Your task to perform on an android device: Is it going to rain tomorrow? Image 0: 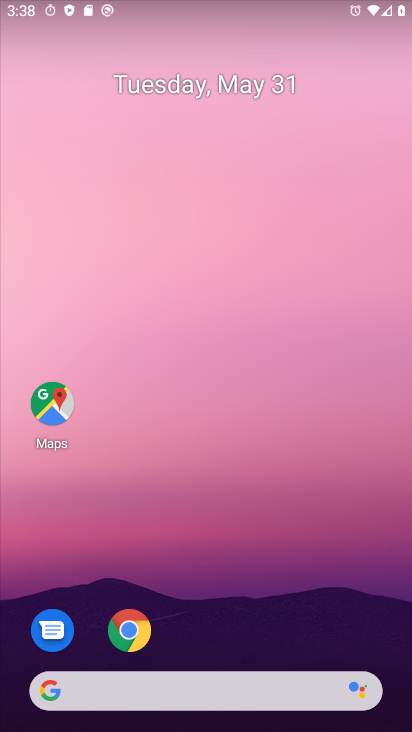
Step 0: drag from (169, 691) to (267, 15)
Your task to perform on an android device: Is it going to rain tomorrow? Image 1: 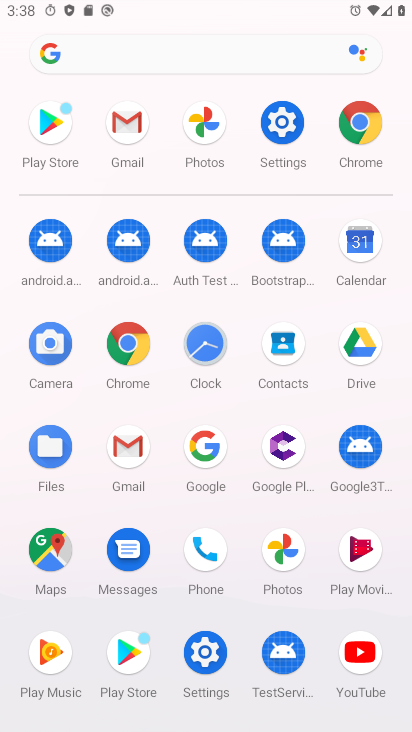
Step 1: press home button
Your task to perform on an android device: Is it going to rain tomorrow? Image 2: 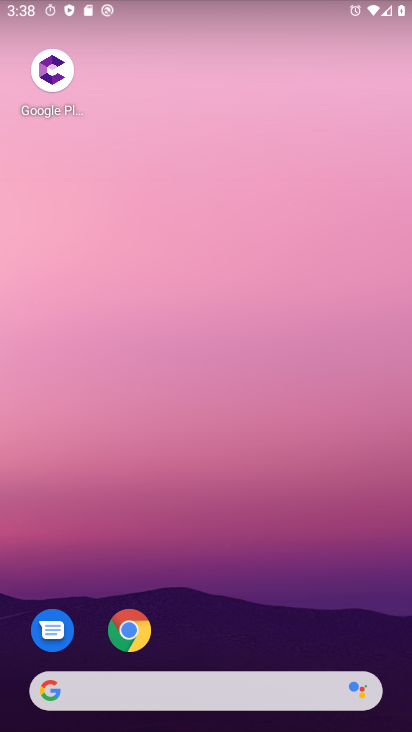
Step 2: drag from (52, 309) to (411, 240)
Your task to perform on an android device: Is it going to rain tomorrow? Image 3: 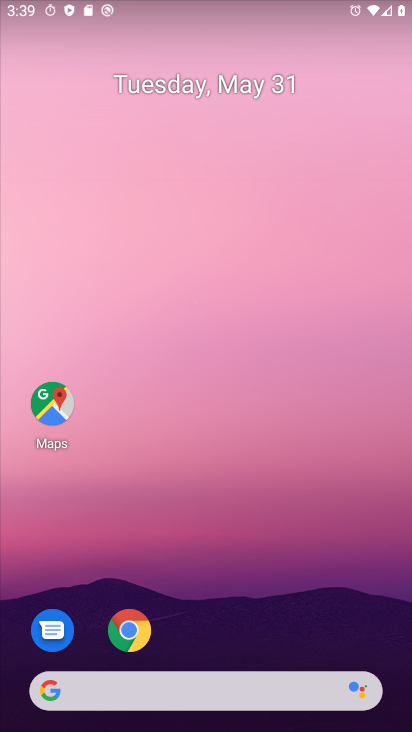
Step 3: drag from (0, 178) to (403, 89)
Your task to perform on an android device: Is it going to rain tomorrow? Image 4: 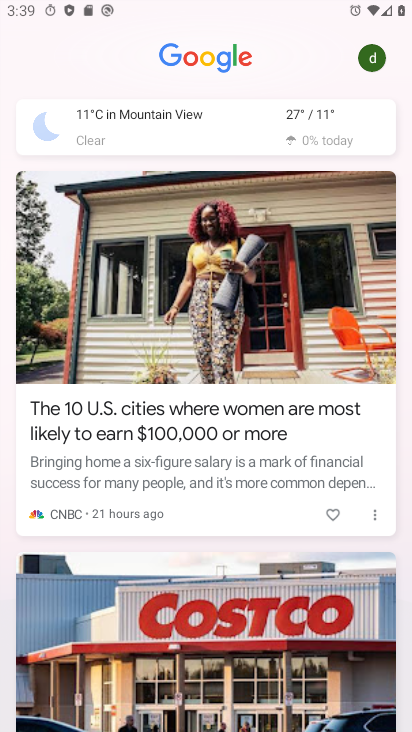
Step 4: click (190, 127)
Your task to perform on an android device: Is it going to rain tomorrow? Image 5: 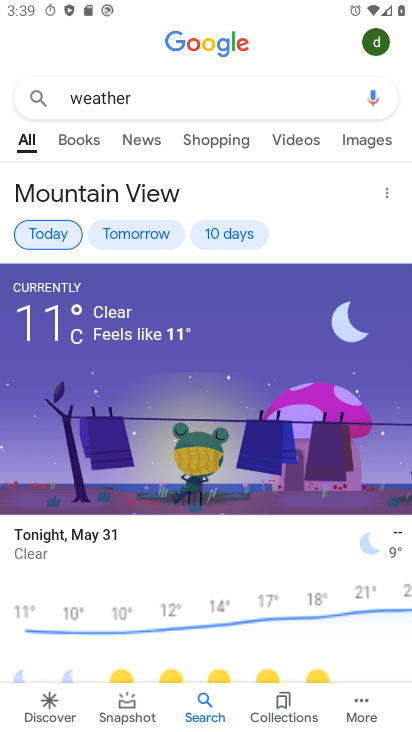
Step 5: task complete